Your task to perform on an android device: Open Google Maps and go to "Timeline" Image 0: 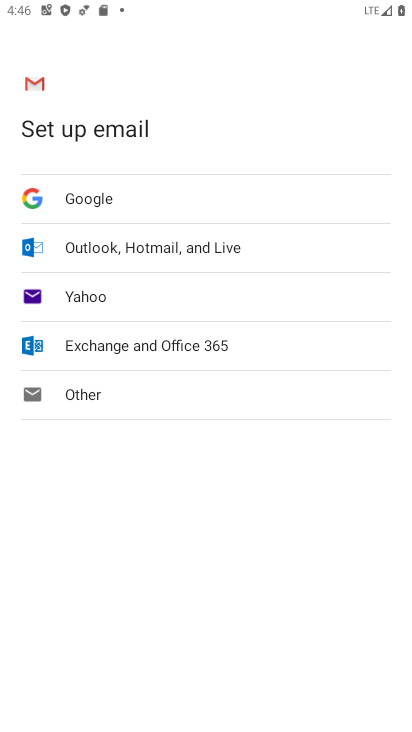
Step 0: press home button
Your task to perform on an android device: Open Google Maps and go to "Timeline" Image 1: 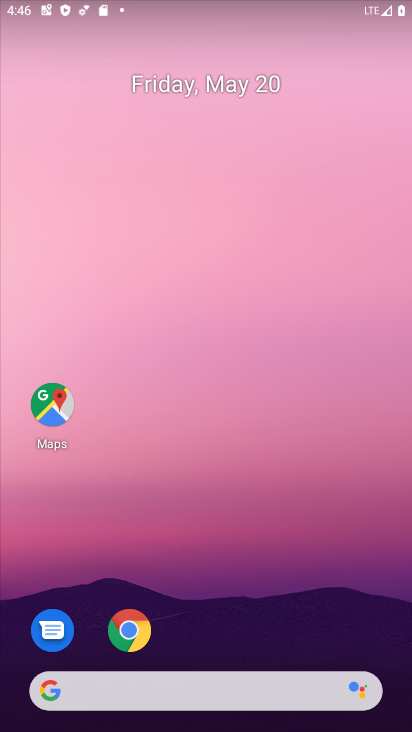
Step 1: click (53, 407)
Your task to perform on an android device: Open Google Maps and go to "Timeline" Image 2: 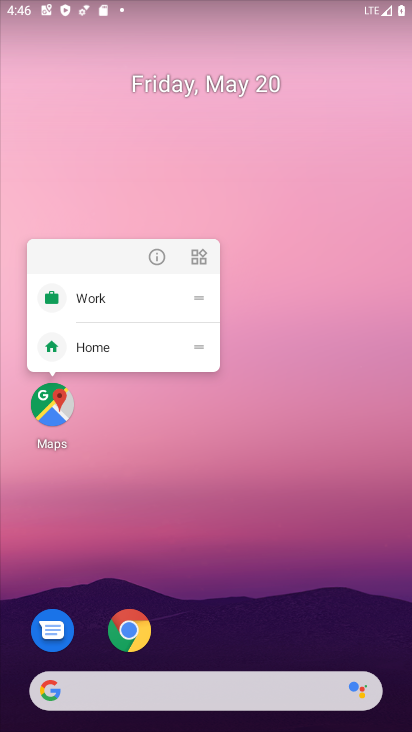
Step 2: click (53, 407)
Your task to perform on an android device: Open Google Maps and go to "Timeline" Image 3: 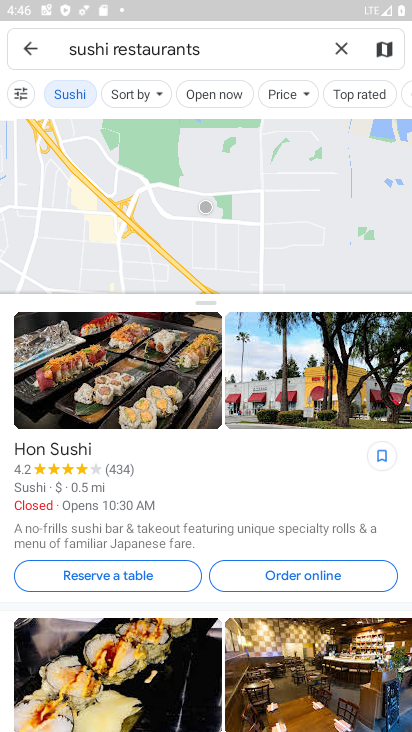
Step 3: click (25, 40)
Your task to perform on an android device: Open Google Maps and go to "Timeline" Image 4: 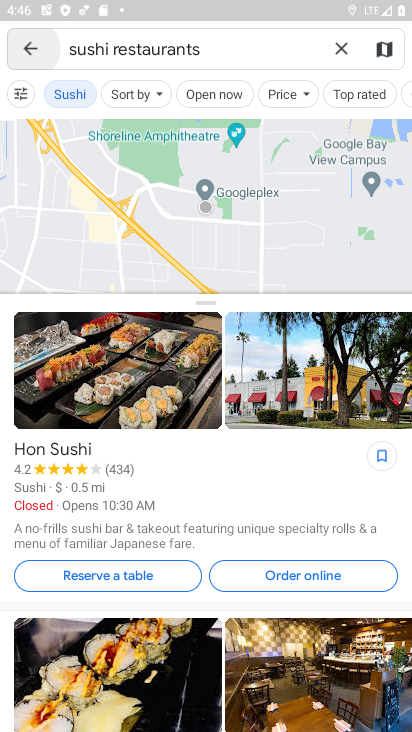
Step 4: click (25, 40)
Your task to perform on an android device: Open Google Maps and go to "Timeline" Image 5: 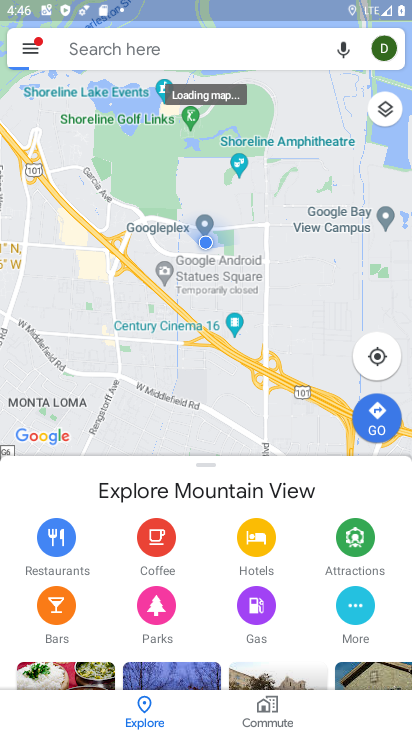
Step 5: click (27, 46)
Your task to perform on an android device: Open Google Maps and go to "Timeline" Image 6: 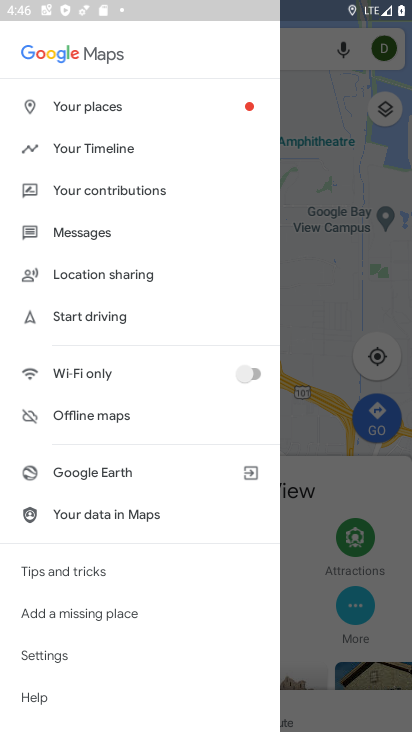
Step 6: click (70, 151)
Your task to perform on an android device: Open Google Maps and go to "Timeline" Image 7: 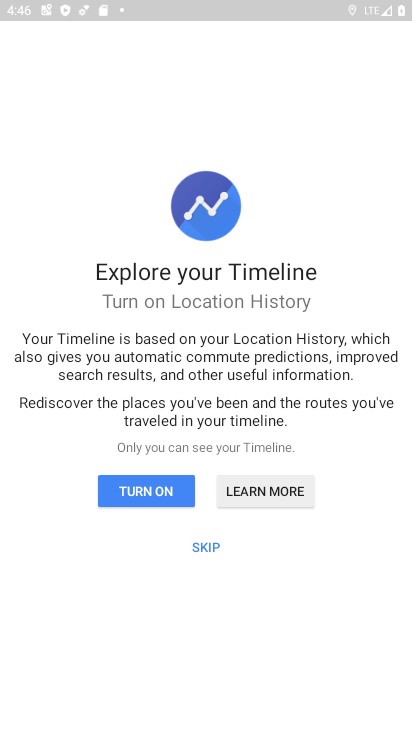
Step 7: click (214, 539)
Your task to perform on an android device: Open Google Maps and go to "Timeline" Image 8: 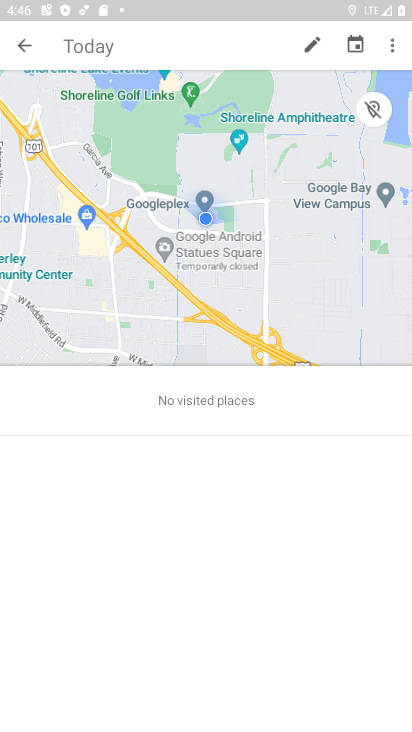
Step 8: task complete